Your task to perform on an android device: delete a single message in the gmail app Image 0: 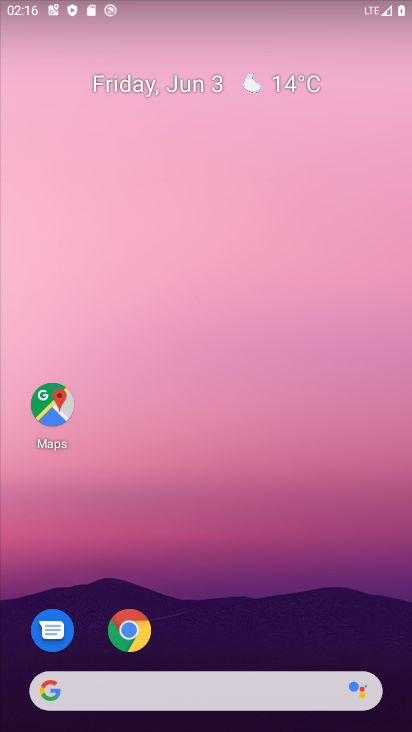
Step 0: drag from (396, 687) to (350, 110)
Your task to perform on an android device: delete a single message in the gmail app Image 1: 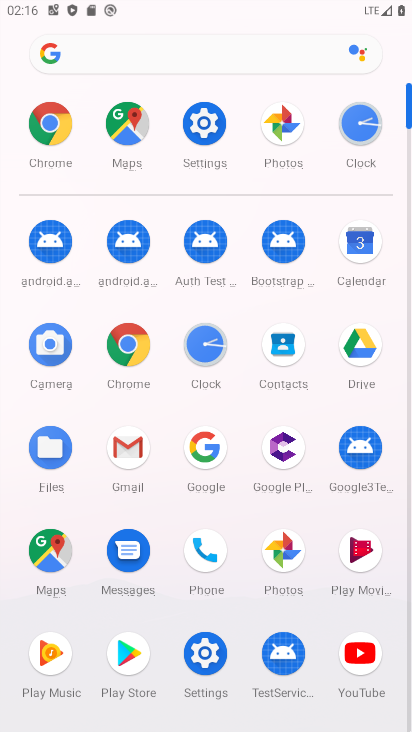
Step 1: click (130, 450)
Your task to perform on an android device: delete a single message in the gmail app Image 2: 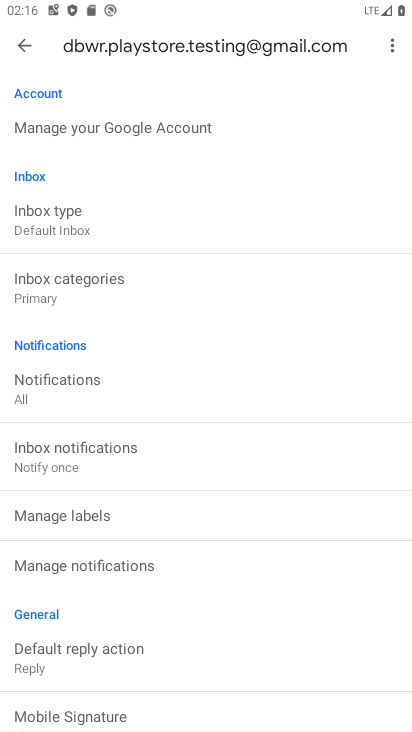
Step 2: click (24, 45)
Your task to perform on an android device: delete a single message in the gmail app Image 3: 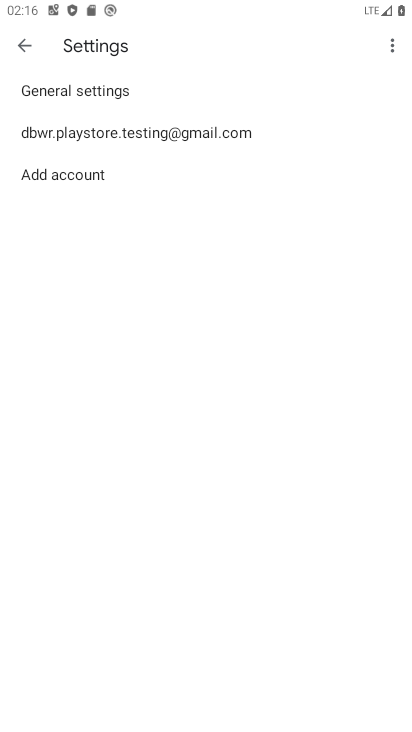
Step 3: click (14, 41)
Your task to perform on an android device: delete a single message in the gmail app Image 4: 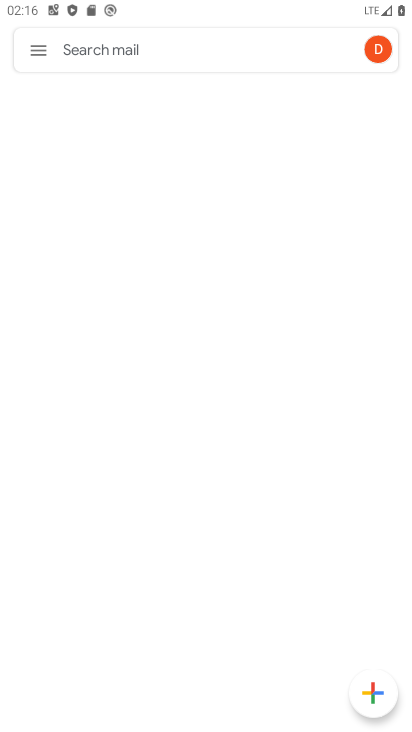
Step 4: click (36, 53)
Your task to perform on an android device: delete a single message in the gmail app Image 5: 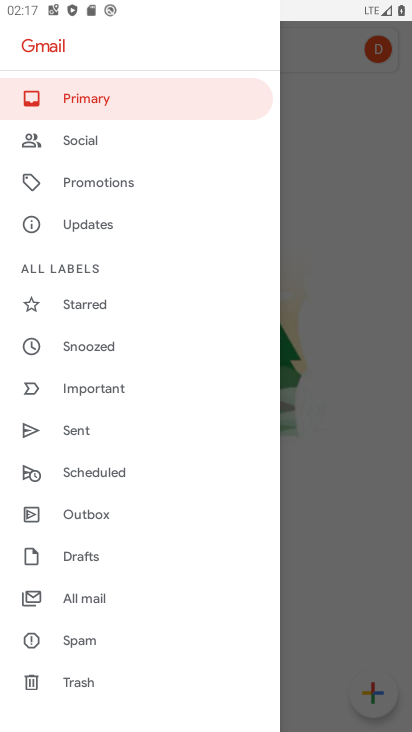
Step 5: click (107, 97)
Your task to perform on an android device: delete a single message in the gmail app Image 6: 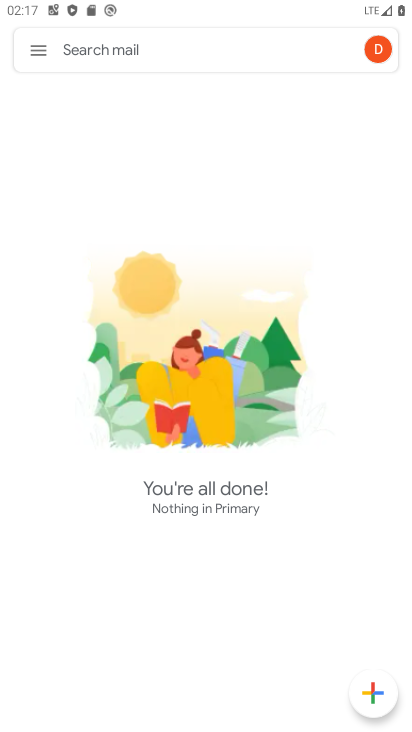
Step 6: task complete